Your task to perform on an android device: Go to internet settings Image 0: 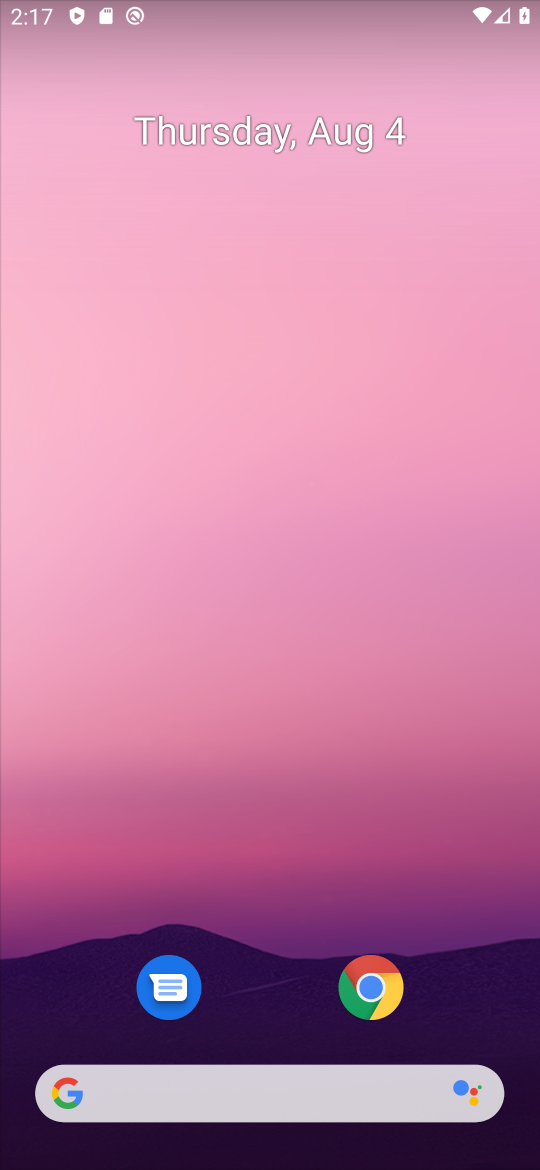
Step 0: drag from (491, 968) to (245, 189)
Your task to perform on an android device: Go to internet settings Image 1: 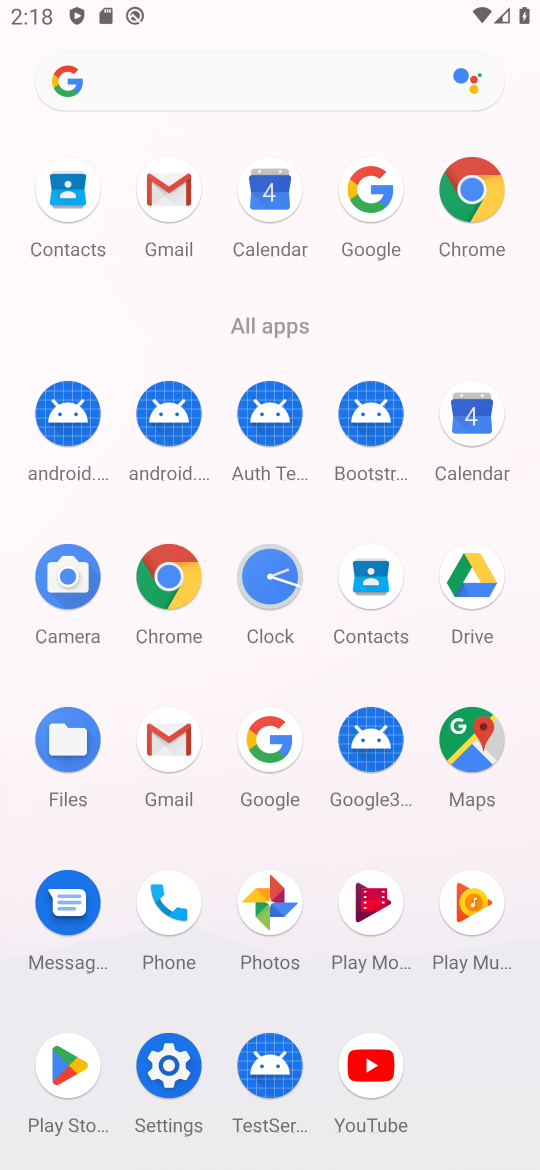
Step 1: click (165, 1076)
Your task to perform on an android device: Go to internet settings Image 2: 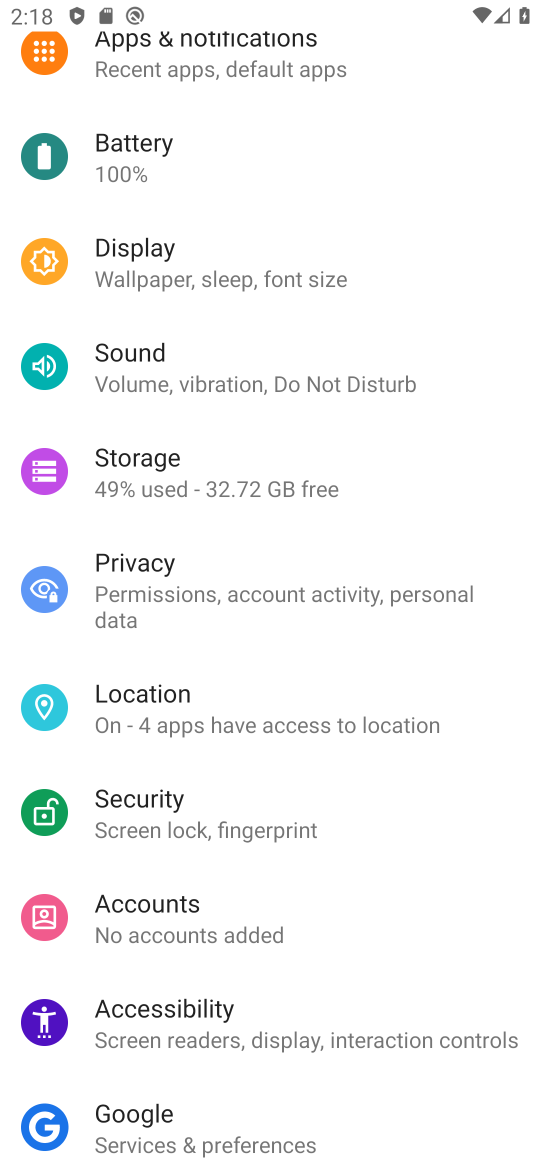
Step 2: drag from (274, 165) to (276, 938)
Your task to perform on an android device: Go to internet settings Image 3: 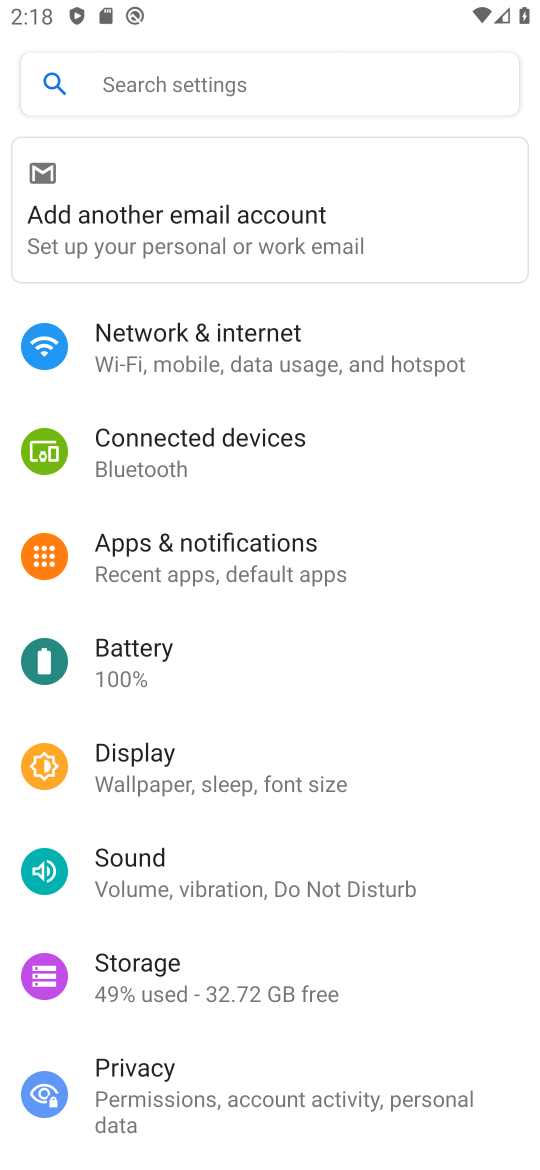
Step 3: click (237, 363)
Your task to perform on an android device: Go to internet settings Image 4: 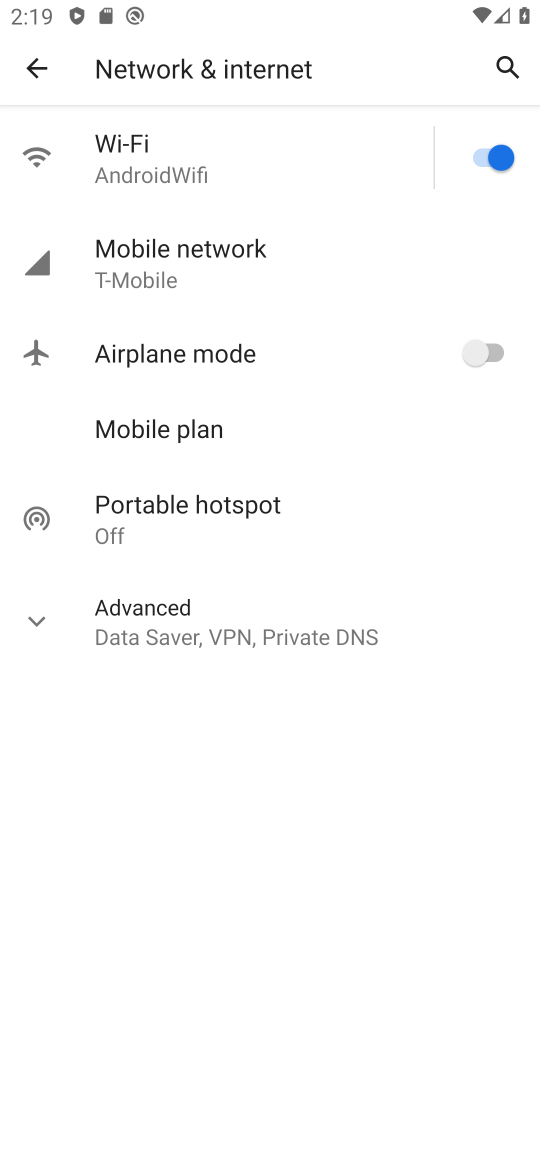
Step 4: task complete